Your task to perform on an android device: Go to Yahoo.com Image 0: 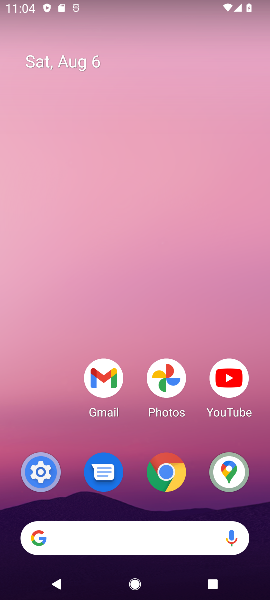
Step 0: click (18, 33)
Your task to perform on an android device: Go to Yahoo.com Image 1: 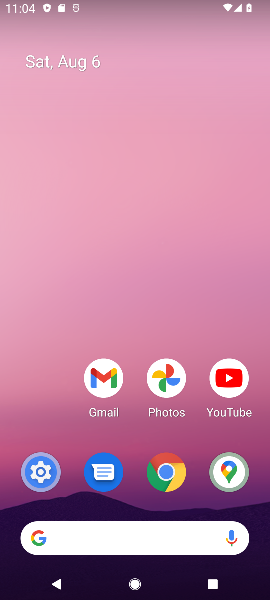
Step 1: drag from (166, 536) to (115, 93)
Your task to perform on an android device: Go to Yahoo.com Image 2: 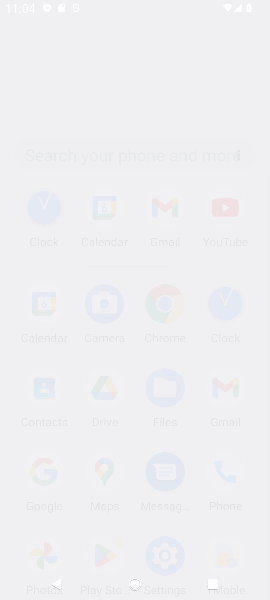
Step 2: drag from (194, 331) to (134, 70)
Your task to perform on an android device: Go to Yahoo.com Image 3: 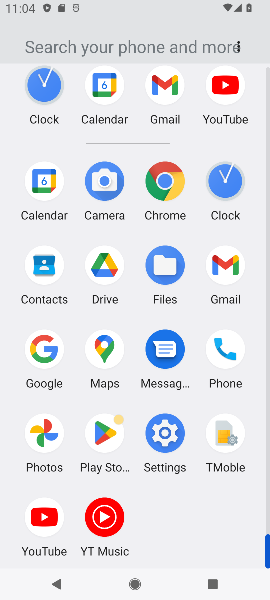
Step 3: click (161, 170)
Your task to perform on an android device: Go to Yahoo.com Image 4: 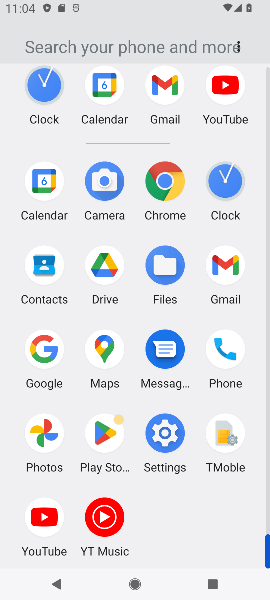
Step 4: click (162, 169)
Your task to perform on an android device: Go to Yahoo.com Image 5: 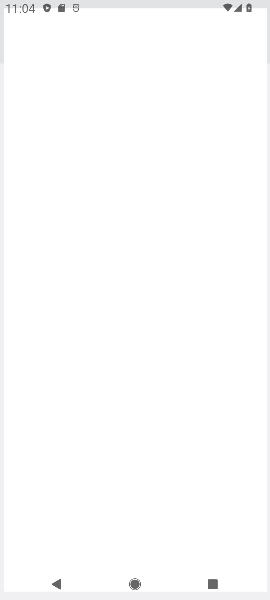
Step 5: click (162, 169)
Your task to perform on an android device: Go to Yahoo.com Image 6: 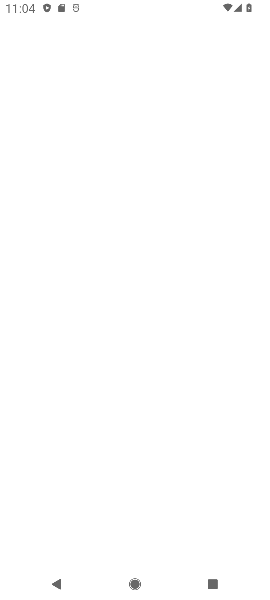
Step 6: click (167, 183)
Your task to perform on an android device: Go to Yahoo.com Image 7: 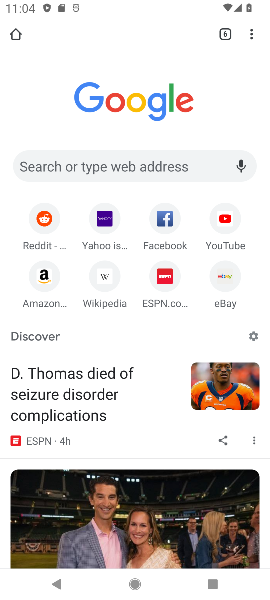
Step 7: click (96, 214)
Your task to perform on an android device: Go to Yahoo.com Image 8: 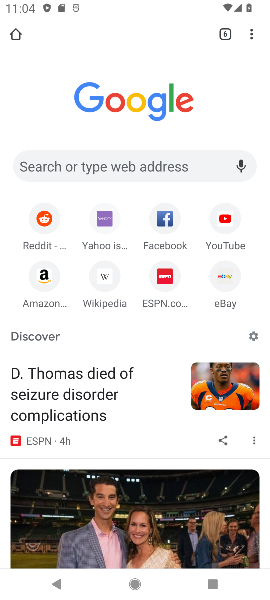
Step 8: click (102, 217)
Your task to perform on an android device: Go to Yahoo.com Image 9: 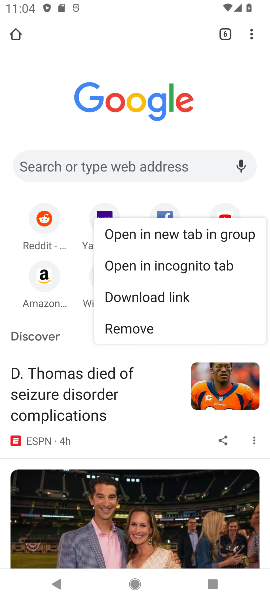
Step 9: click (88, 211)
Your task to perform on an android device: Go to Yahoo.com Image 10: 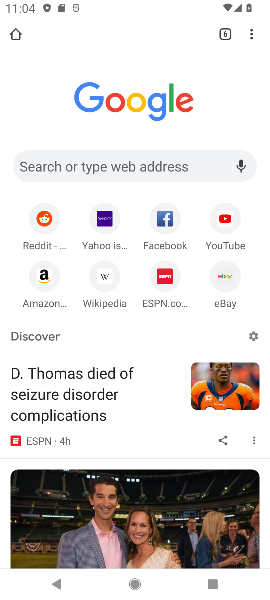
Step 10: click (85, 205)
Your task to perform on an android device: Go to Yahoo.com Image 11: 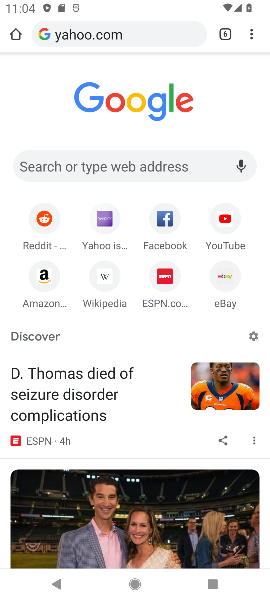
Step 11: click (93, 211)
Your task to perform on an android device: Go to Yahoo.com Image 12: 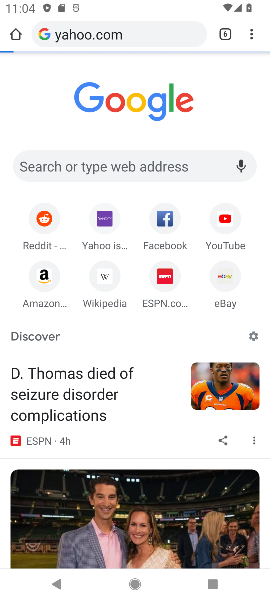
Step 12: click (105, 214)
Your task to perform on an android device: Go to Yahoo.com Image 13: 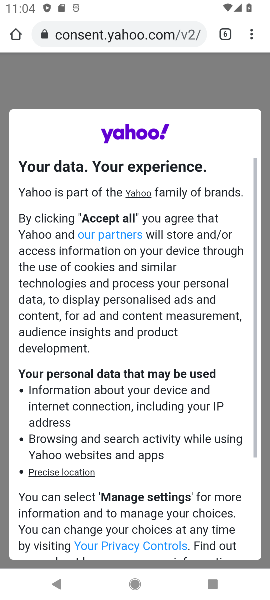
Step 13: task complete